Your task to perform on an android device: Open Reddit.com Image 0: 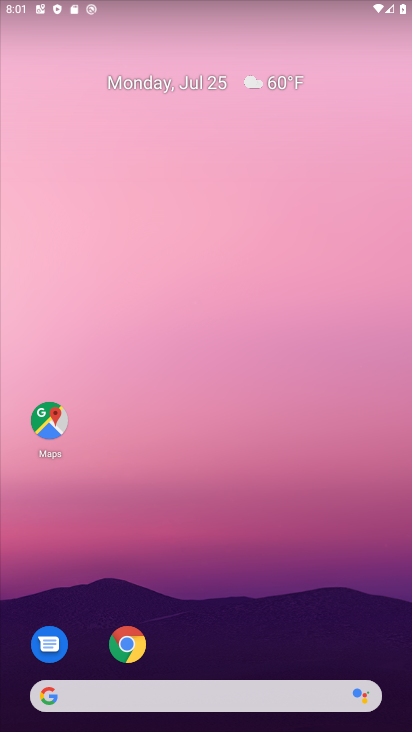
Step 0: click (168, 706)
Your task to perform on an android device: Open Reddit.com Image 1: 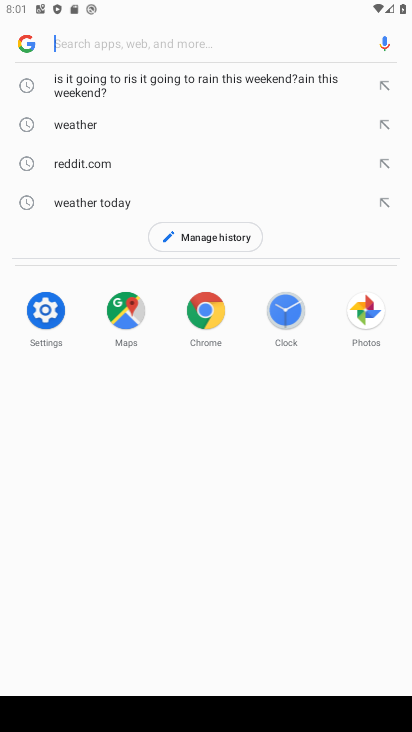
Step 1: type "Reddit.com"
Your task to perform on an android device: Open Reddit.com Image 2: 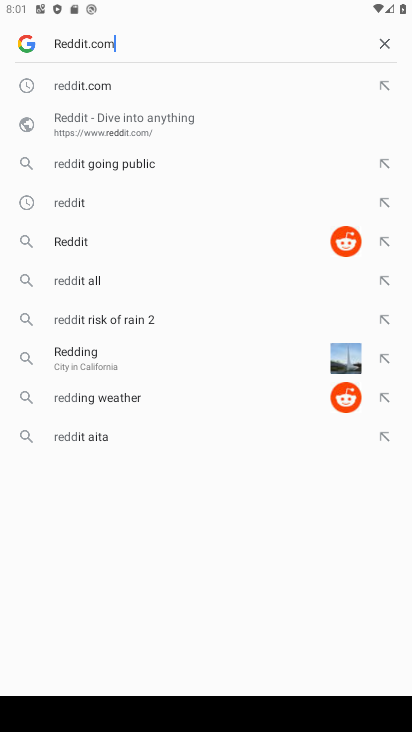
Step 2: press enter
Your task to perform on an android device: Open Reddit.com Image 3: 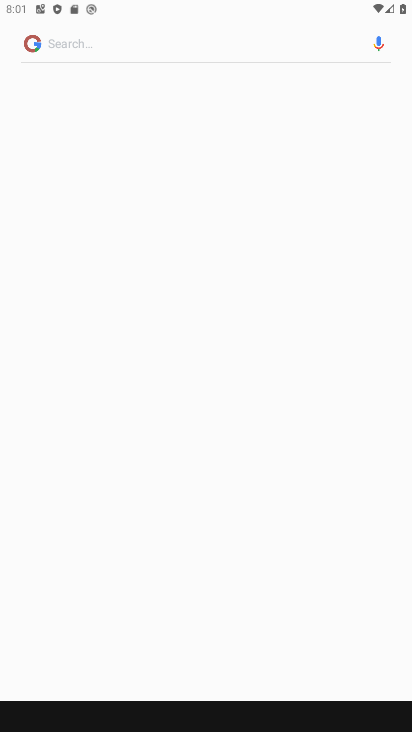
Step 3: task complete